Your task to perform on an android device: add a contact in the contacts app Image 0: 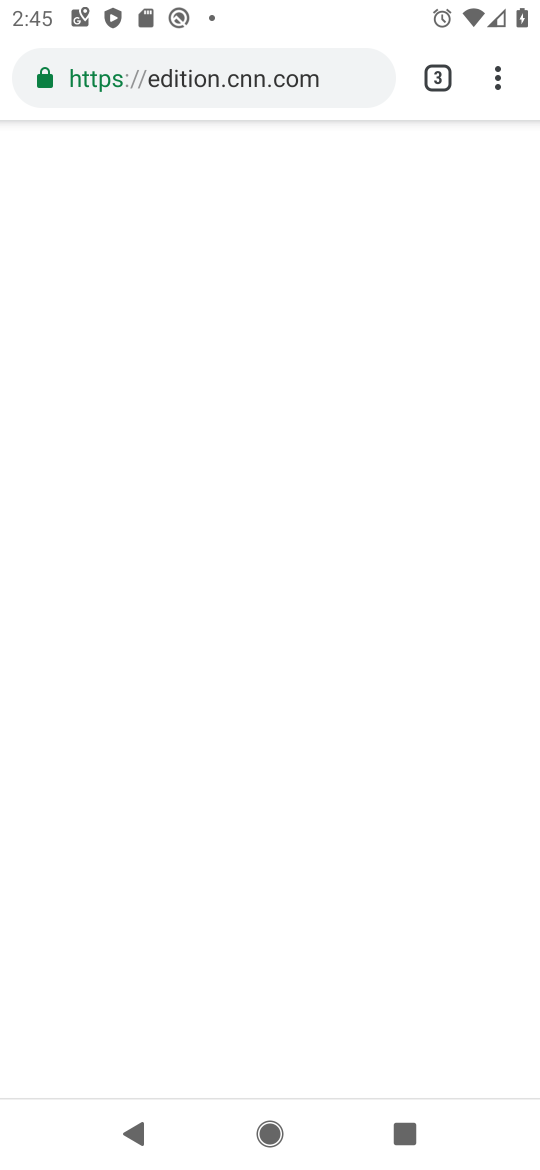
Step 0: press home button
Your task to perform on an android device: add a contact in the contacts app Image 1: 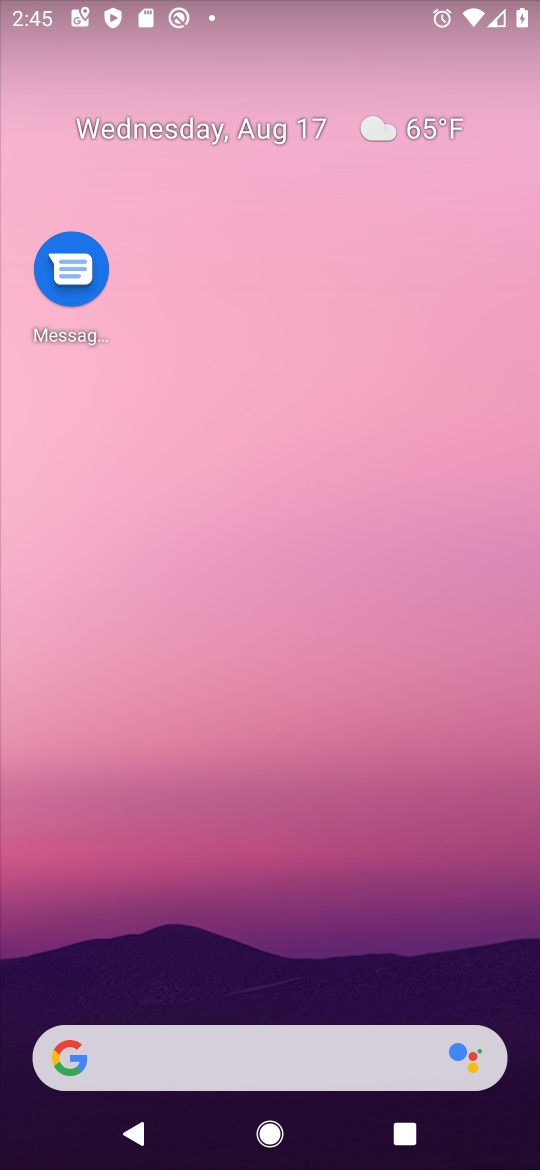
Step 1: drag from (138, 742) to (128, 193)
Your task to perform on an android device: add a contact in the contacts app Image 2: 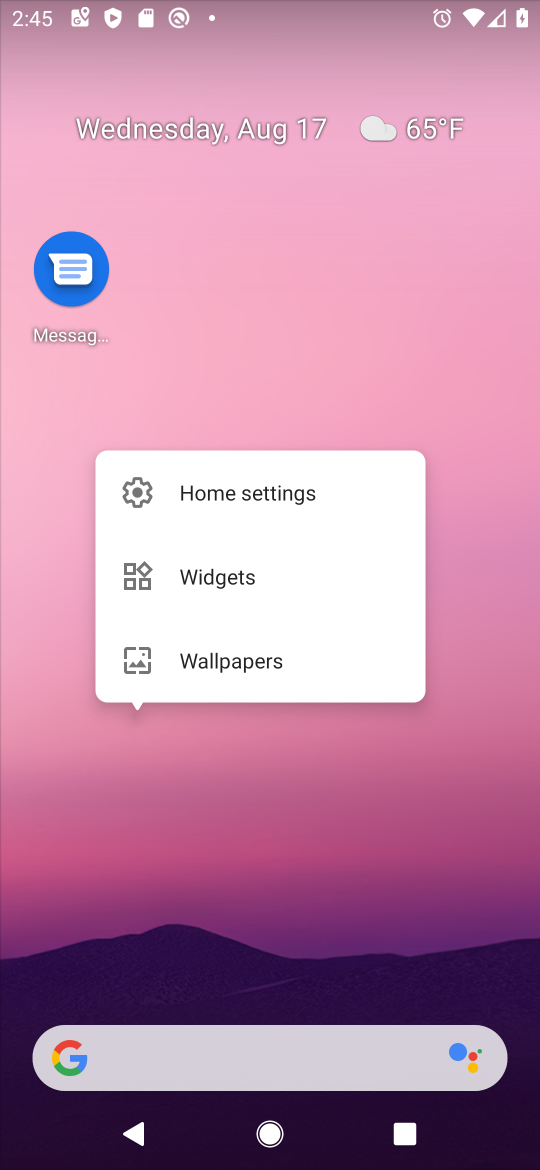
Step 2: click (425, 898)
Your task to perform on an android device: add a contact in the contacts app Image 3: 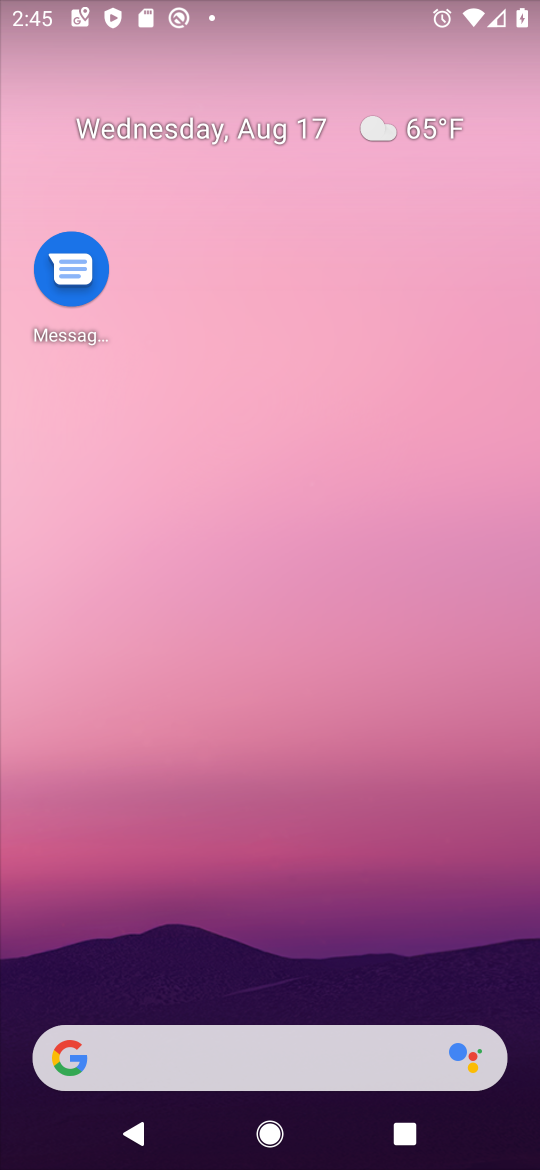
Step 3: drag from (166, 616) to (182, 46)
Your task to perform on an android device: add a contact in the contacts app Image 4: 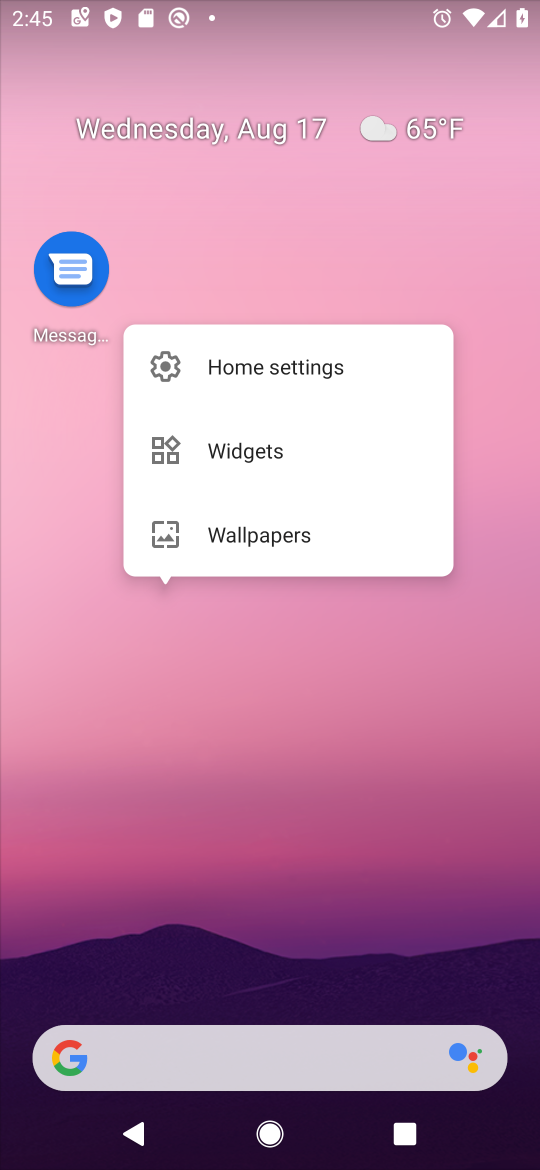
Step 4: click (428, 673)
Your task to perform on an android device: add a contact in the contacts app Image 5: 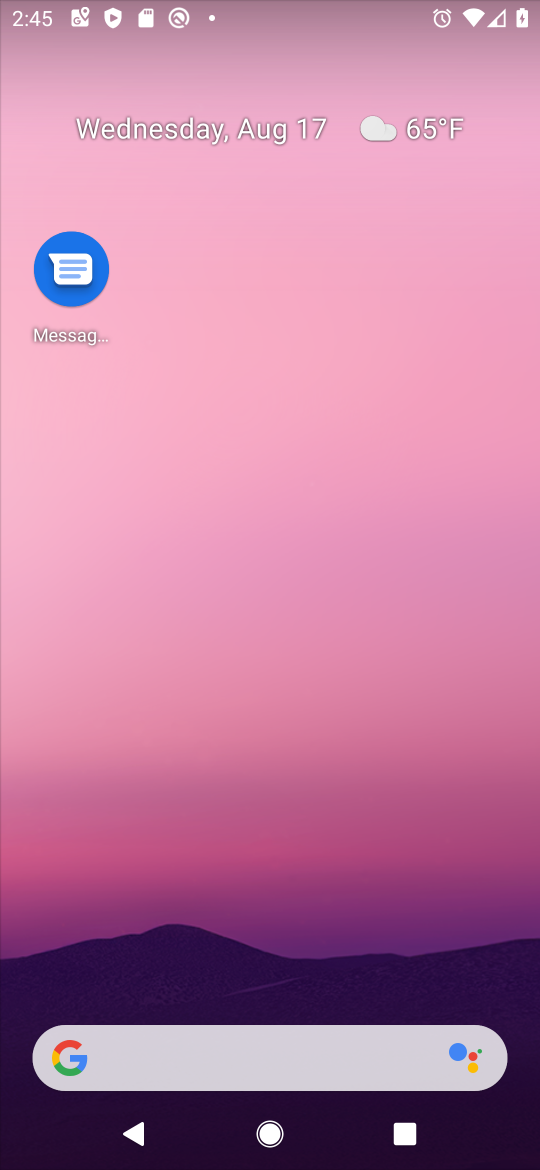
Step 5: drag from (238, 980) to (137, 218)
Your task to perform on an android device: add a contact in the contacts app Image 6: 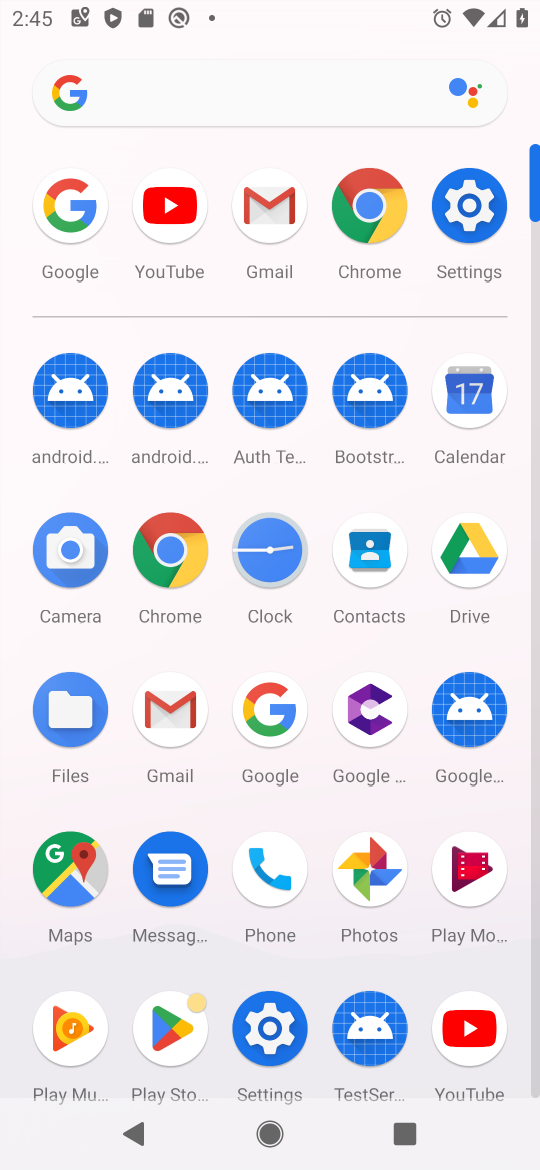
Step 6: click (281, 899)
Your task to perform on an android device: add a contact in the contacts app Image 7: 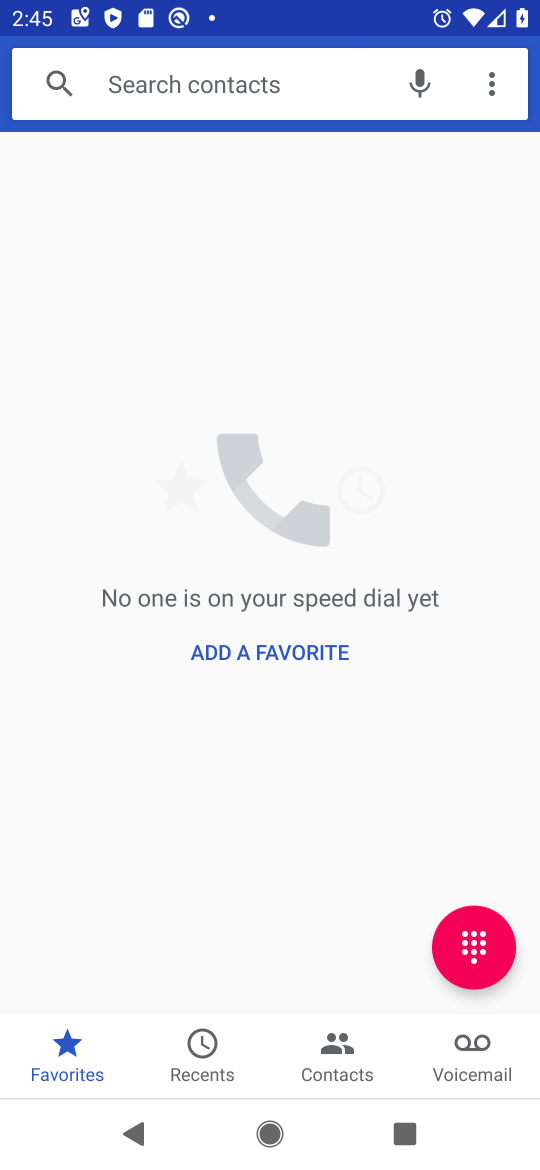
Step 7: click (316, 1028)
Your task to perform on an android device: add a contact in the contacts app Image 8: 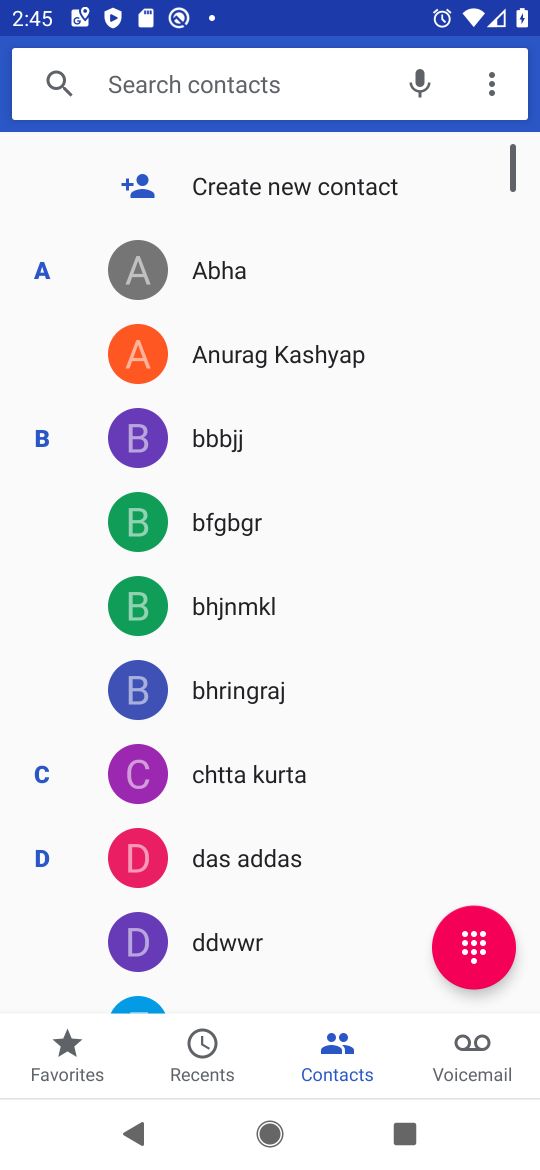
Step 8: click (251, 200)
Your task to perform on an android device: add a contact in the contacts app Image 9: 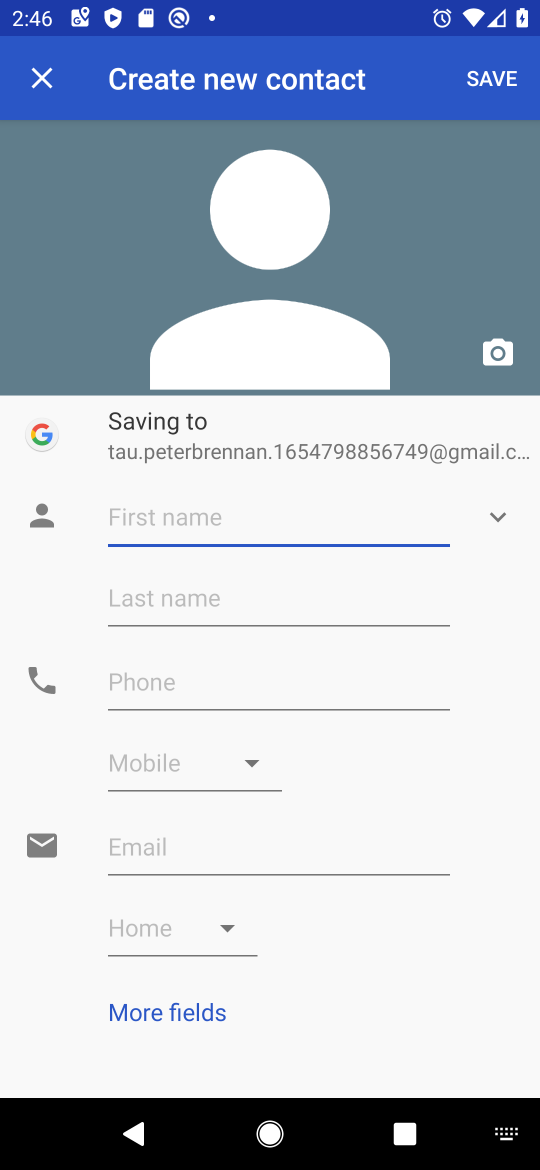
Step 9: type "Episod"
Your task to perform on an android device: add a contact in the contacts app Image 10: 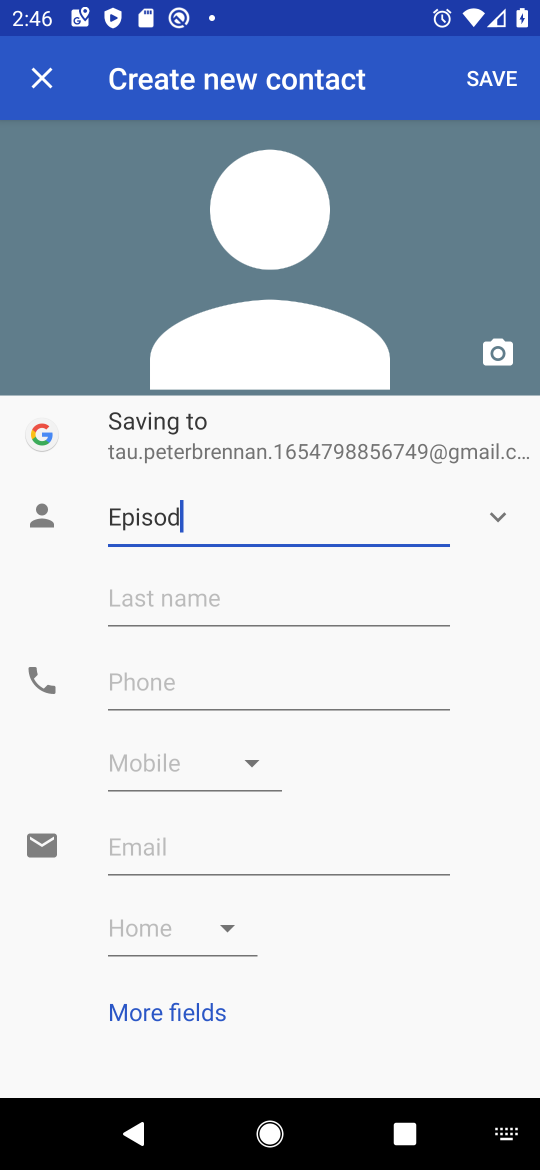
Step 10: type ""
Your task to perform on an android device: add a contact in the contacts app Image 11: 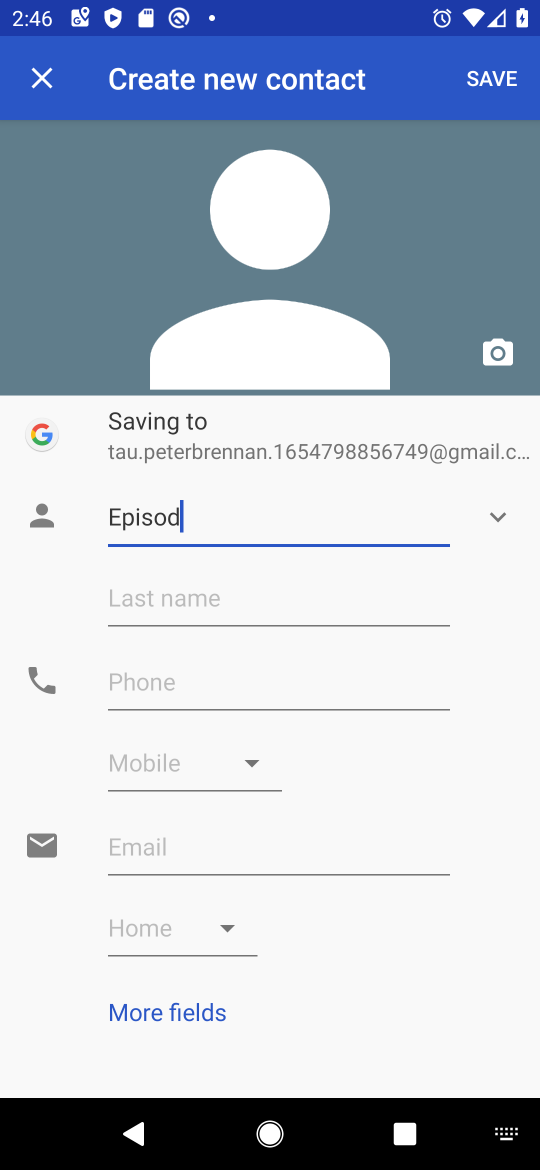
Step 11: click (161, 679)
Your task to perform on an android device: add a contact in the contacts app Image 12: 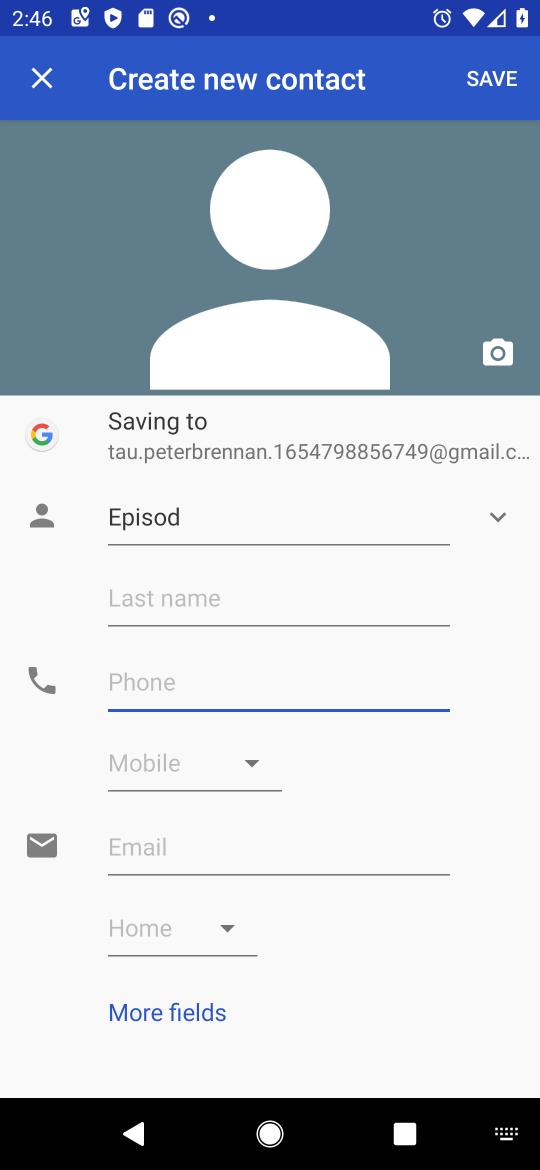
Step 12: type "755"
Your task to perform on an android device: add a contact in the contacts app Image 13: 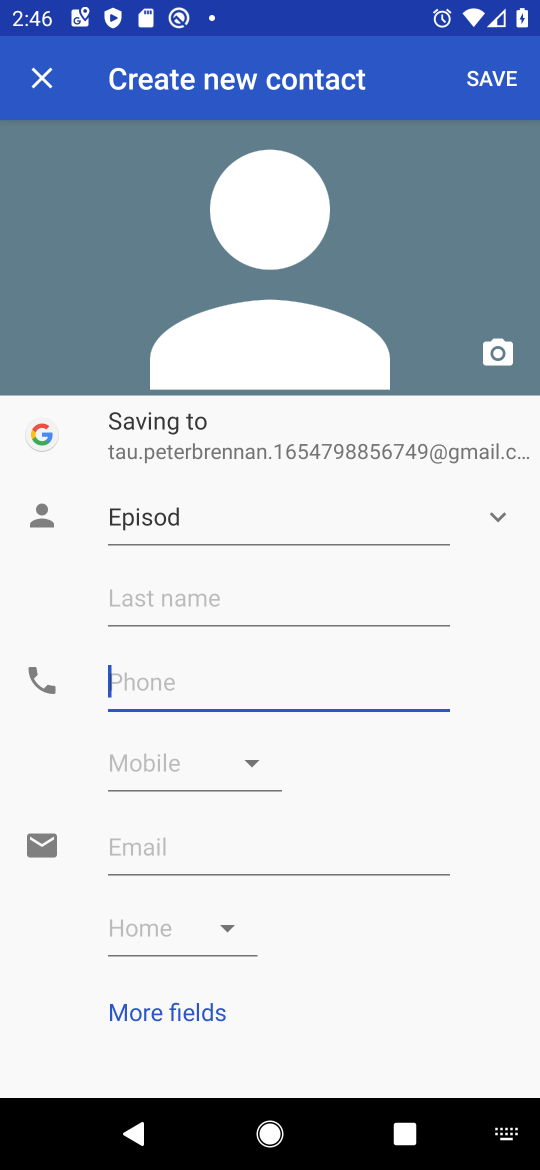
Step 13: click (495, 66)
Your task to perform on an android device: add a contact in the contacts app Image 14: 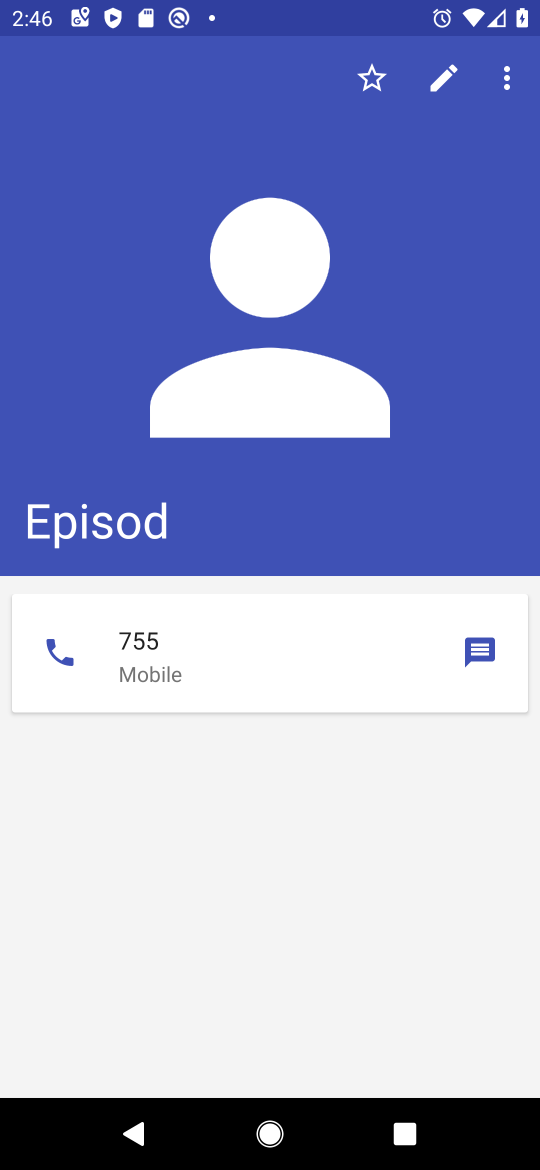
Step 14: task complete